Your task to perform on an android device: turn smart compose on in the gmail app Image 0: 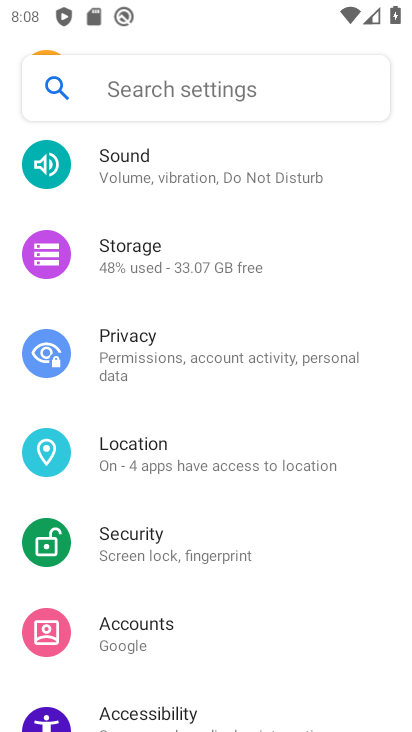
Step 0: press back button
Your task to perform on an android device: turn smart compose on in the gmail app Image 1: 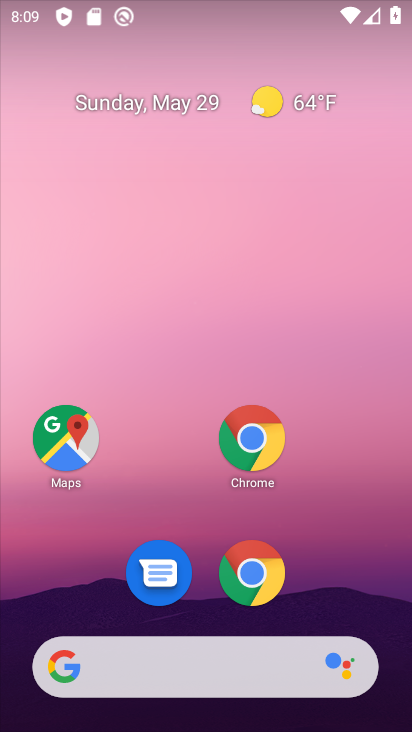
Step 1: drag from (227, 697) to (137, 169)
Your task to perform on an android device: turn smart compose on in the gmail app Image 2: 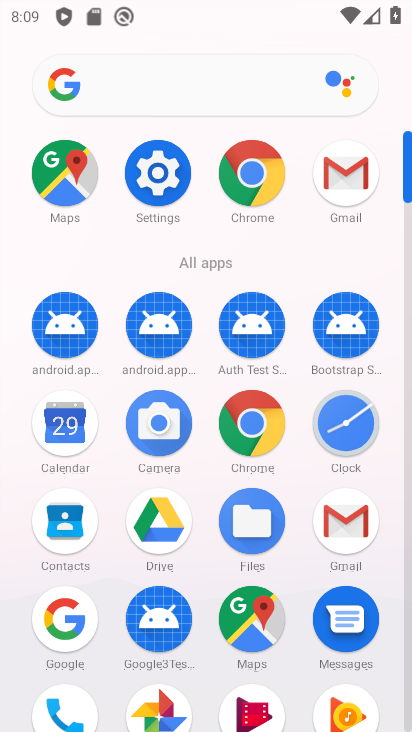
Step 2: click (341, 516)
Your task to perform on an android device: turn smart compose on in the gmail app Image 3: 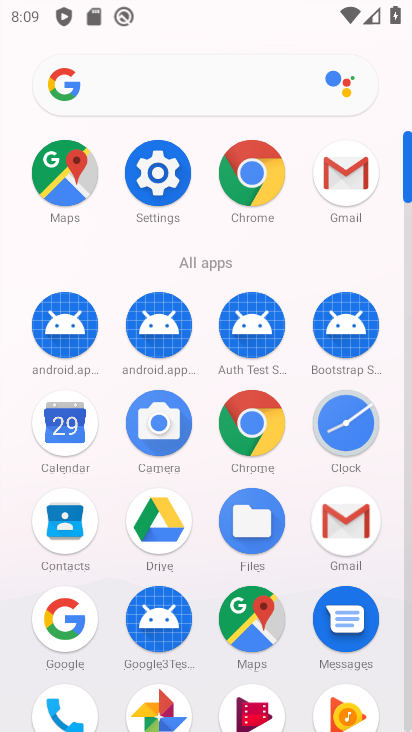
Step 3: click (341, 516)
Your task to perform on an android device: turn smart compose on in the gmail app Image 4: 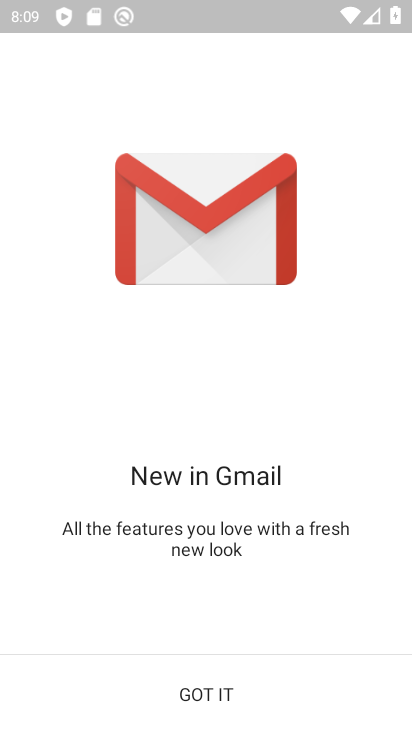
Step 4: click (350, 529)
Your task to perform on an android device: turn smart compose on in the gmail app Image 5: 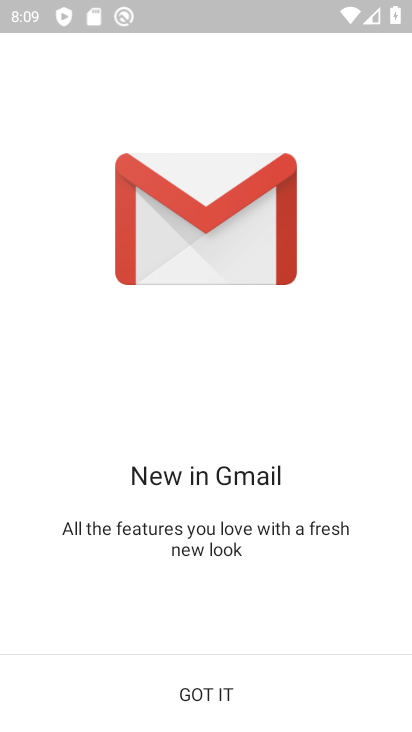
Step 5: click (209, 688)
Your task to perform on an android device: turn smart compose on in the gmail app Image 6: 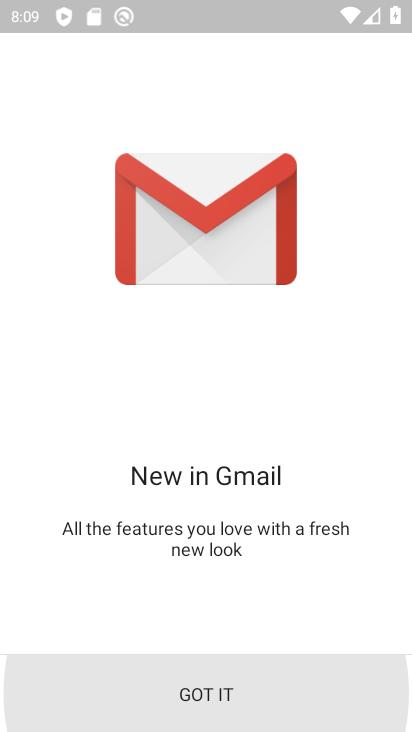
Step 6: click (204, 691)
Your task to perform on an android device: turn smart compose on in the gmail app Image 7: 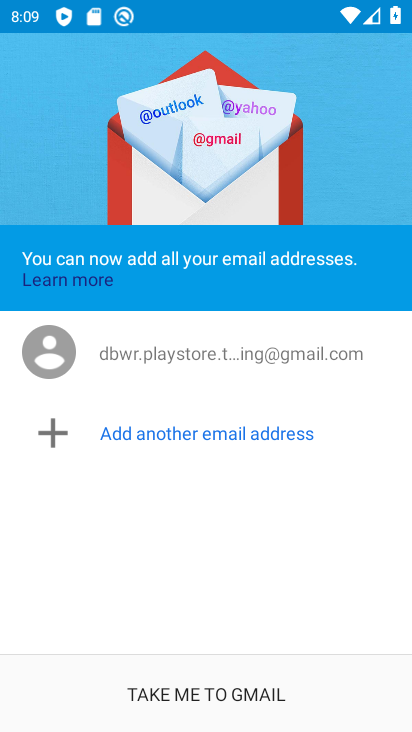
Step 7: click (203, 694)
Your task to perform on an android device: turn smart compose on in the gmail app Image 8: 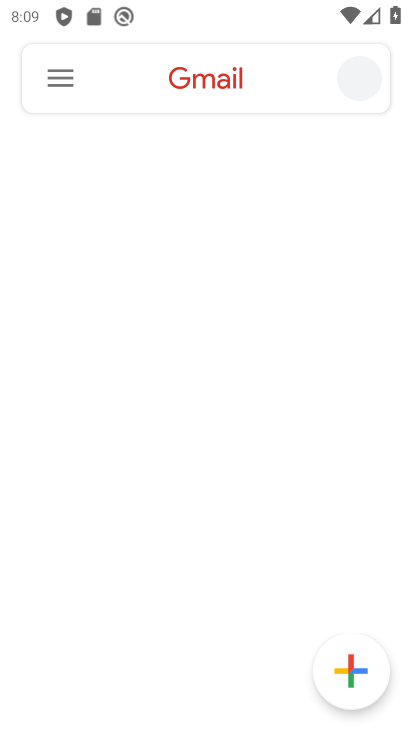
Step 8: press back button
Your task to perform on an android device: turn smart compose on in the gmail app Image 9: 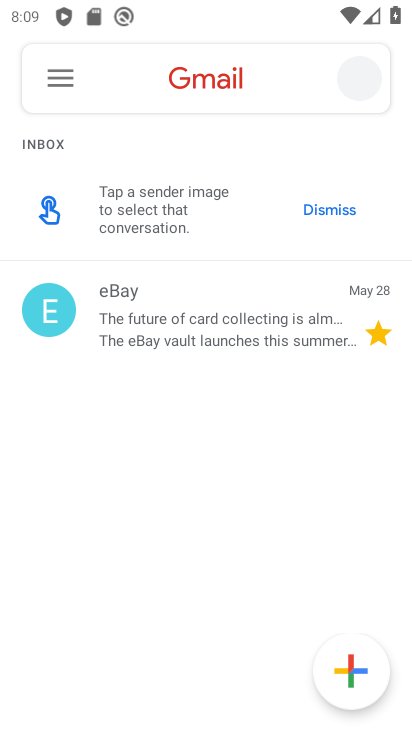
Step 9: press back button
Your task to perform on an android device: turn smart compose on in the gmail app Image 10: 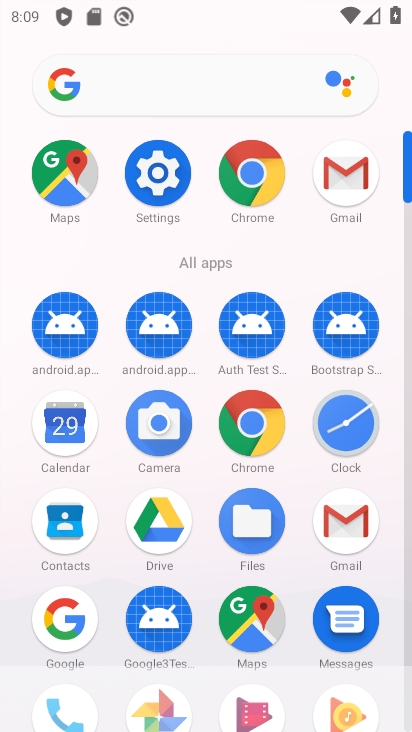
Step 10: press back button
Your task to perform on an android device: turn smart compose on in the gmail app Image 11: 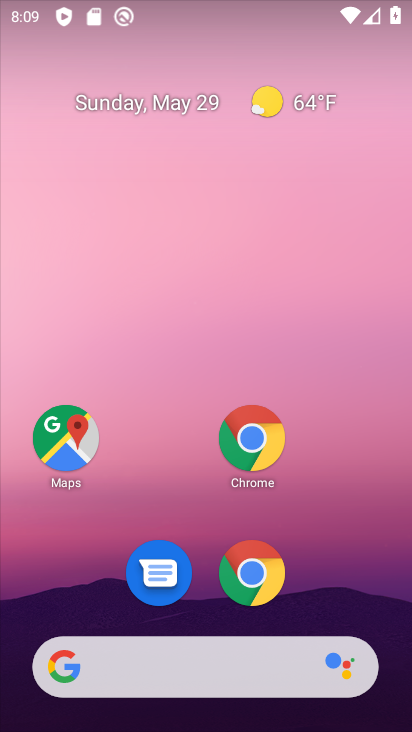
Step 11: press home button
Your task to perform on an android device: turn smart compose on in the gmail app Image 12: 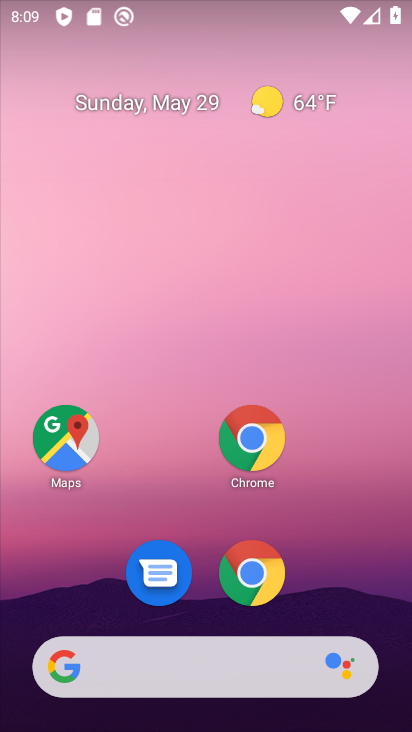
Step 12: click (227, 4)
Your task to perform on an android device: turn smart compose on in the gmail app Image 13: 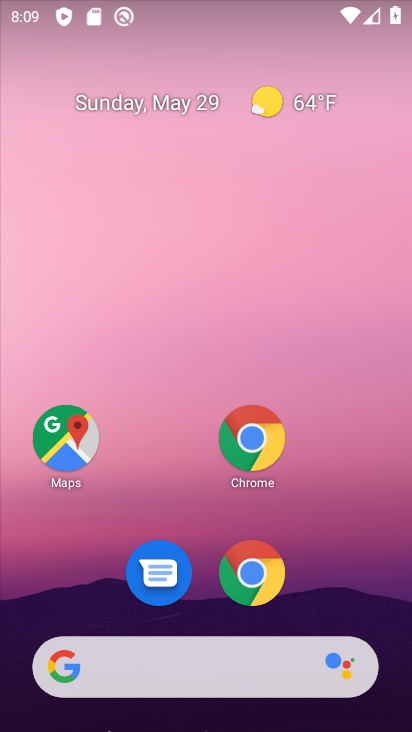
Step 13: drag from (210, 541) to (223, 89)
Your task to perform on an android device: turn smart compose on in the gmail app Image 14: 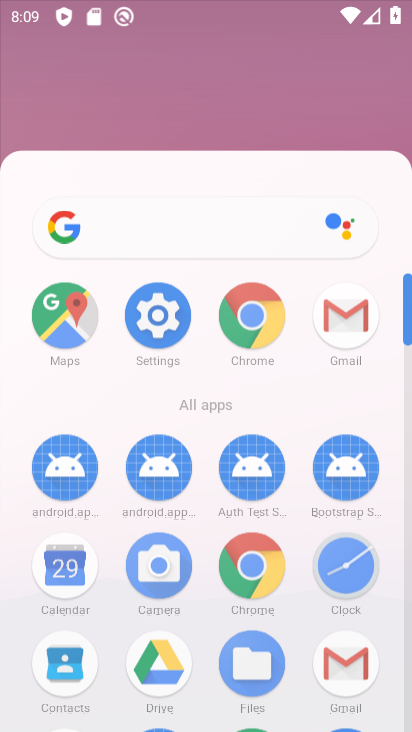
Step 14: drag from (220, 313) to (222, 70)
Your task to perform on an android device: turn smart compose on in the gmail app Image 15: 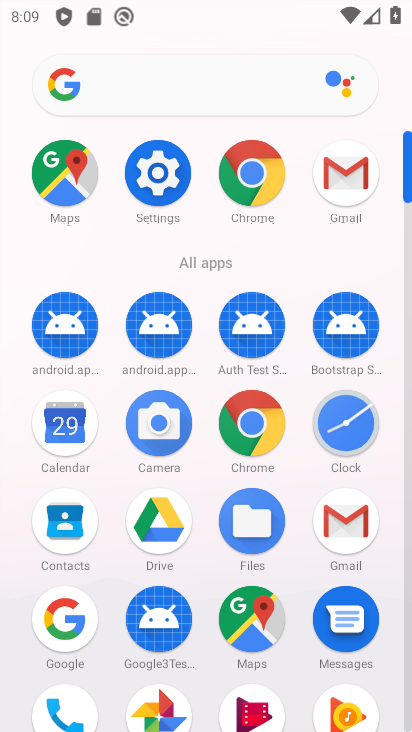
Step 15: click (345, 178)
Your task to perform on an android device: turn smart compose on in the gmail app Image 16: 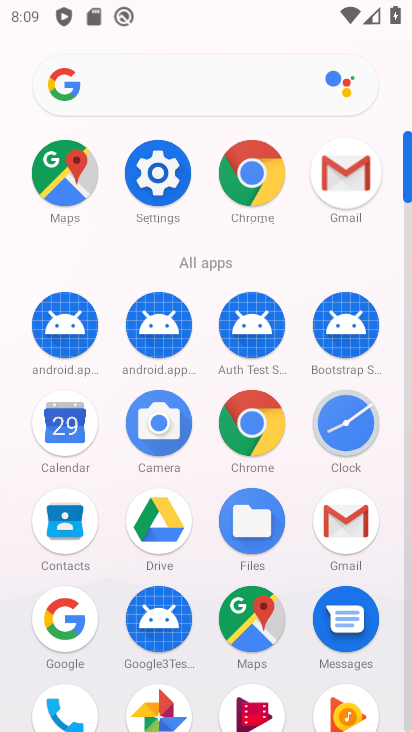
Step 16: click (345, 178)
Your task to perform on an android device: turn smart compose on in the gmail app Image 17: 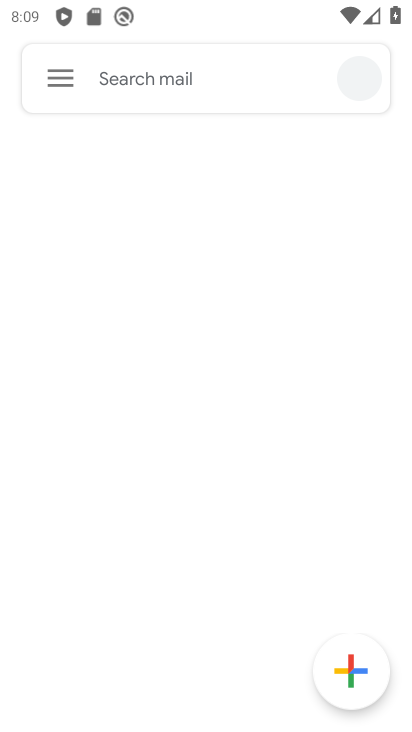
Step 17: click (345, 178)
Your task to perform on an android device: turn smart compose on in the gmail app Image 18: 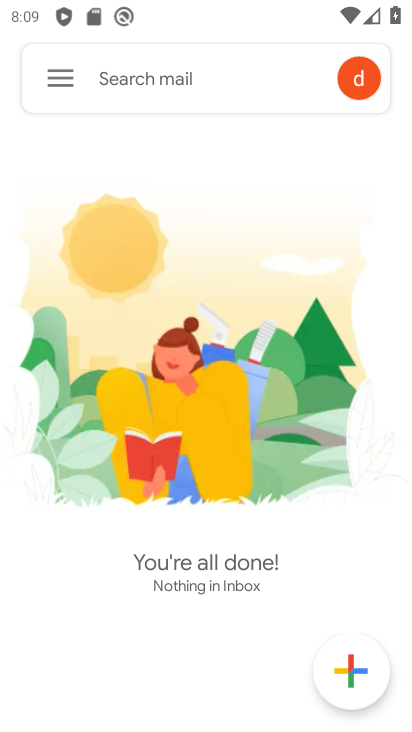
Step 18: click (57, 78)
Your task to perform on an android device: turn smart compose on in the gmail app Image 19: 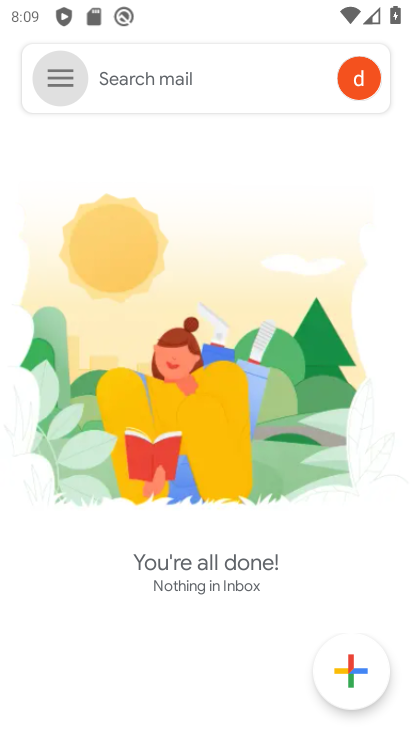
Step 19: click (58, 77)
Your task to perform on an android device: turn smart compose on in the gmail app Image 20: 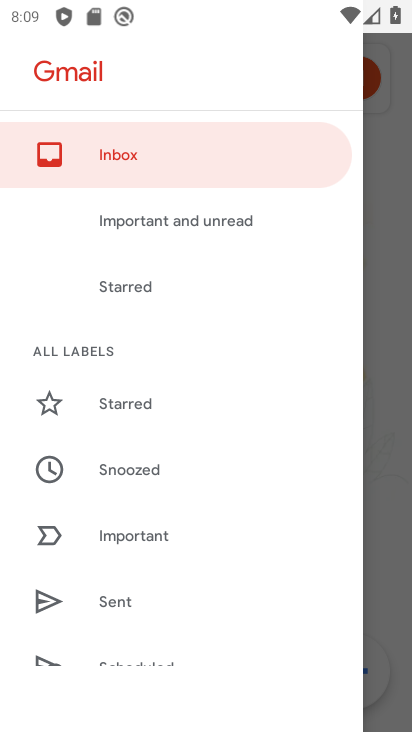
Step 20: drag from (147, 543) to (143, 195)
Your task to perform on an android device: turn smart compose on in the gmail app Image 21: 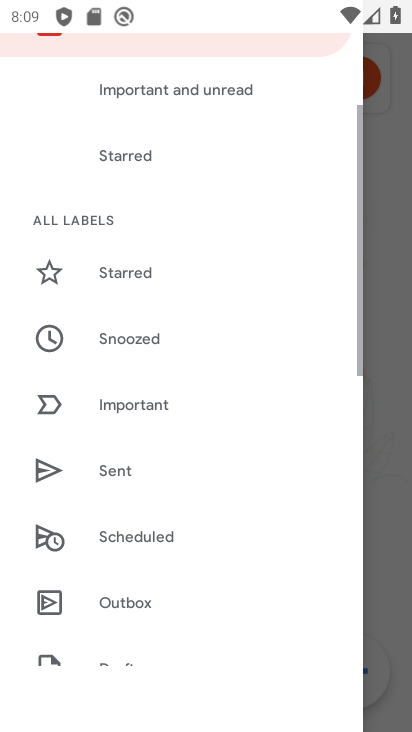
Step 21: drag from (158, 457) to (158, 19)
Your task to perform on an android device: turn smart compose on in the gmail app Image 22: 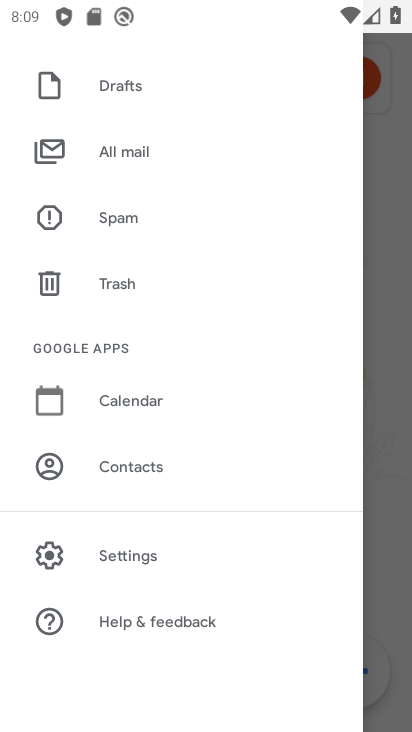
Step 22: click (123, 547)
Your task to perform on an android device: turn smart compose on in the gmail app Image 23: 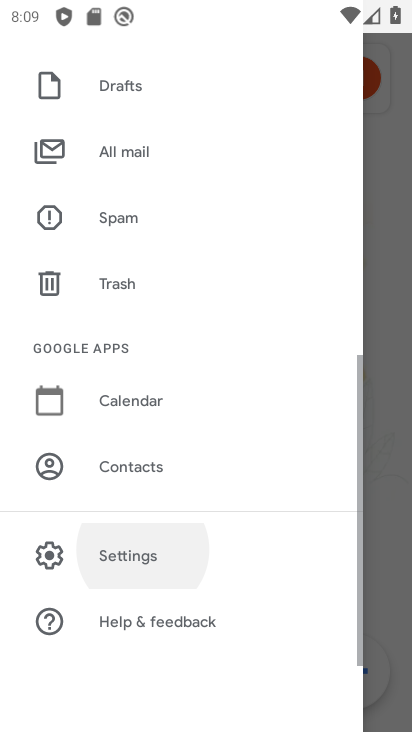
Step 23: click (121, 547)
Your task to perform on an android device: turn smart compose on in the gmail app Image 24: 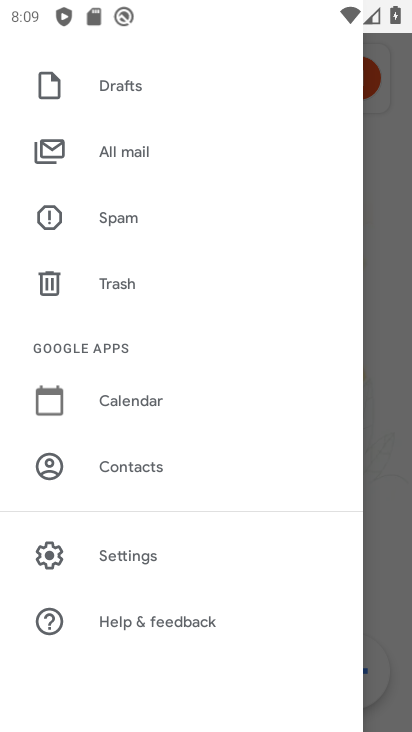
Step 24: click (120, 553)
Your task to perform on an android device: turn smart compose on in the gmail app Image 25: 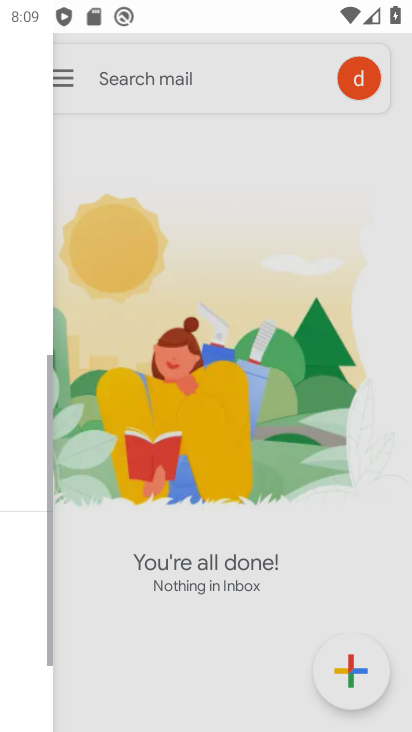
Step 25: click (125, 562)
Your task to perform on an android device: turn smart compose on in the gmail app Image 26: 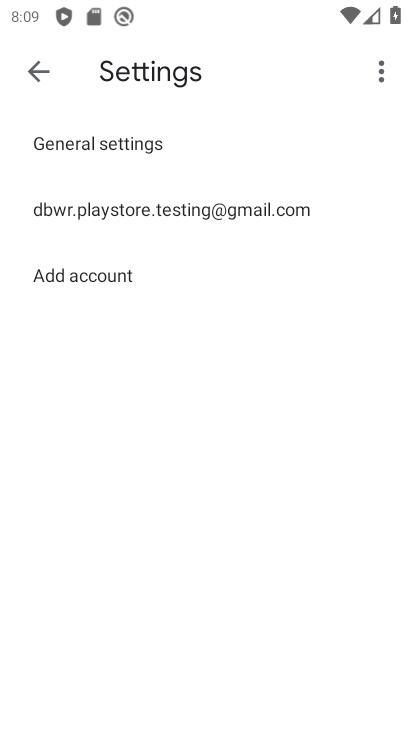
Step 26: click (136, 218)
Your task to perform on an android device: turn smart compose on in the gmail app Image 27: 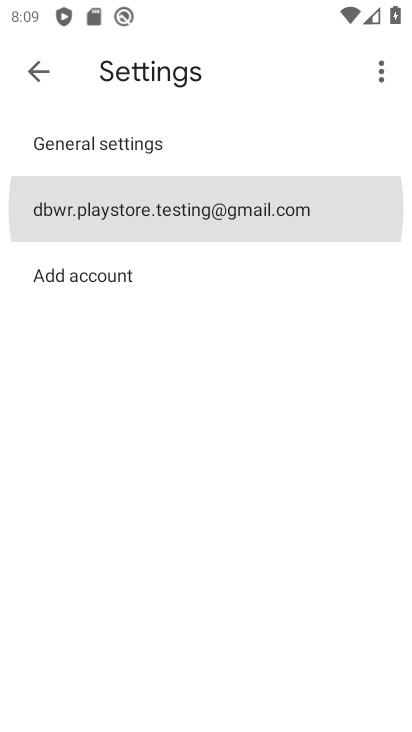
Step 27: click (133, 211)
Your task to perform on an android device: turn smart compose on in the gmail app Image 28: 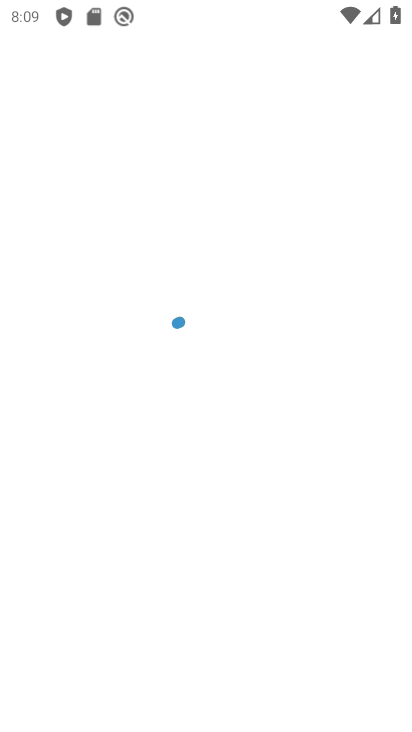
Step 28: press back button
Your task to perform on an android device: turn smart compose on in the gmail app Image 29: 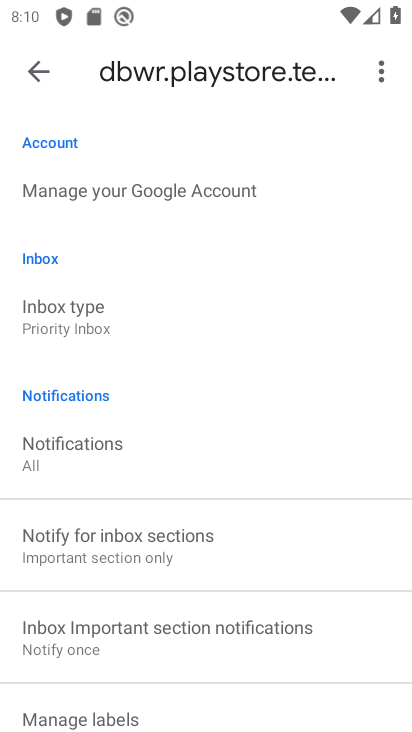
Step 29: drag from (86, 560) to (139, 190)
Your task to perform on an android device: turn smart compose on in the gmail app Image 30: 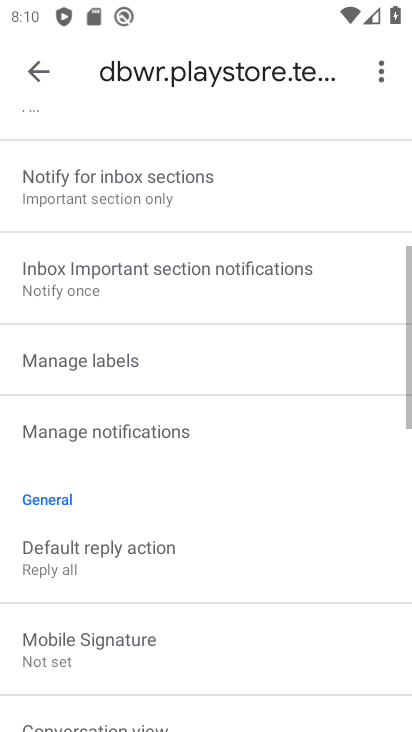
Step 30: drag from (123, 442) to (163, 109)
Your task to perform on an android device: turn smart compose on in the gmail app Image 31: 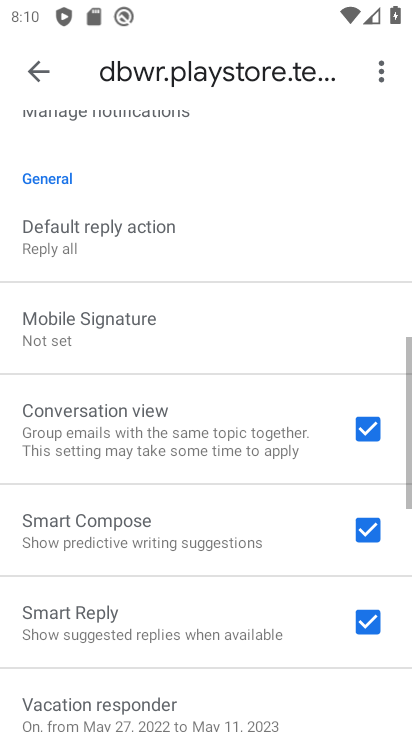
Step 31: drag from (140, 441) to (167, 22)
Your task to perform on an android device: turn smart compose on in the gmail app Image 32: 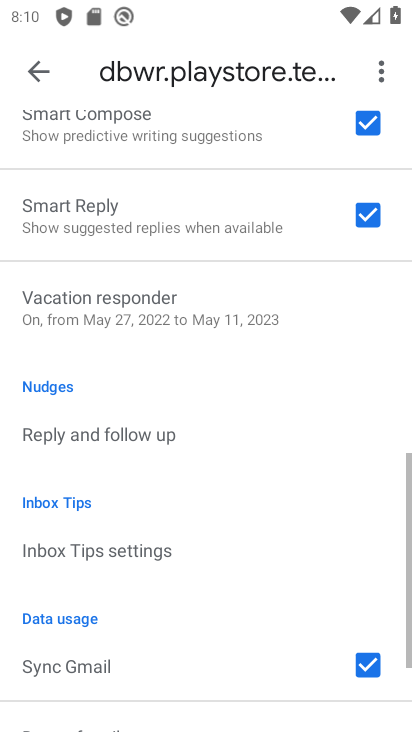
Step 32: drag from (164, 447) to (164, 202)
Your task to perform on an android device: turn smart compose on in the gmail app Image 33: 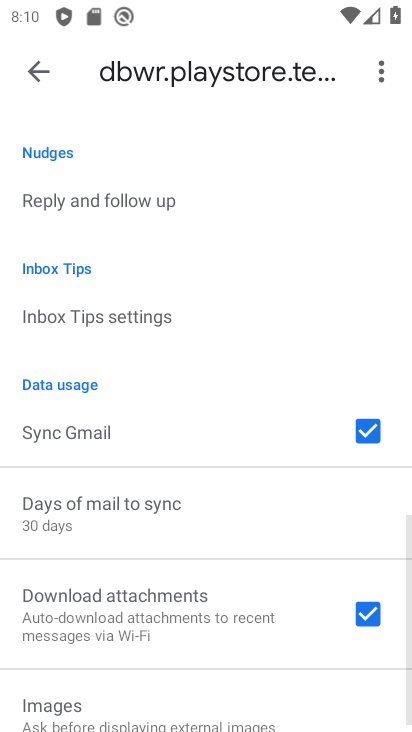
Step 33: drag from (170, 551) to (194, 231)
Your task to perform on an android device: turn smart compose on in the gmail app Image 34: 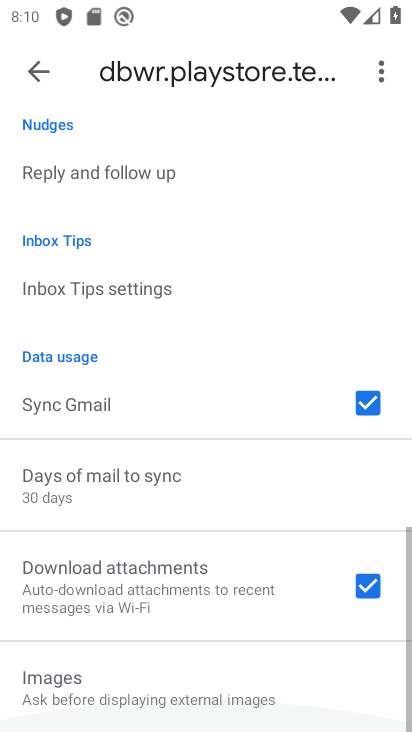
Step 34: drag from (196, 455) to (143, 137)
Your task to perform on an android device: turn smart compose on in the gmail app Image 35: 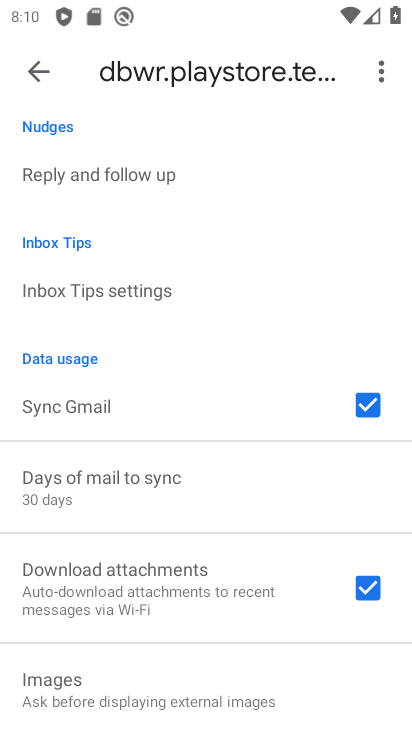
Step 35: drag from (103, 562) to (110, 246)
Your task to perform on an android device: turn smart compose on in the gmail app Image 36: 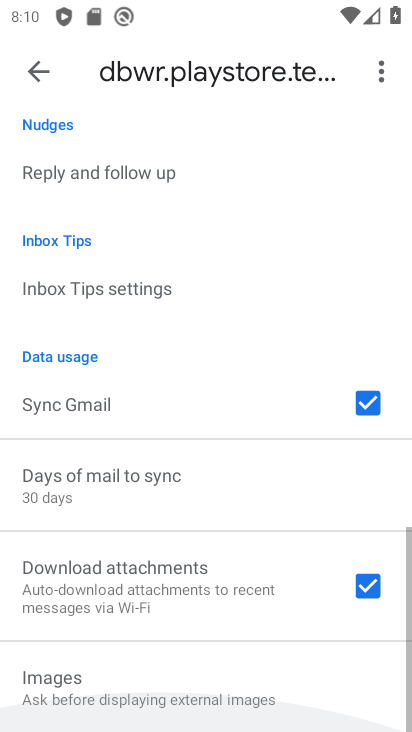
Step 36: drag from (147, 399) to (122, 186)
Your task to perform on an android device: turn smart compose on in the gmail app Image 37: 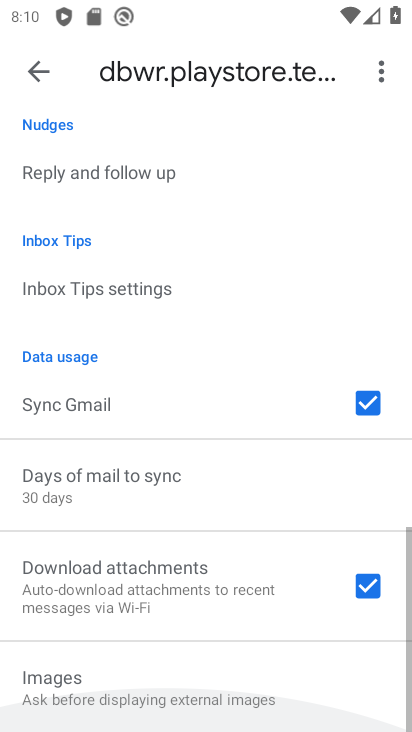
Step 37: drag from (115, 400) to (107, 105)
Your task to perform on an android device: turn smart compose on in the gmail app Image 38: 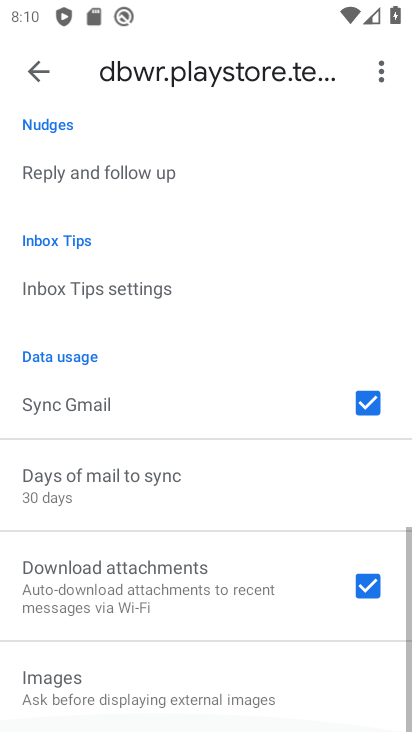
Step 38: drag from (149, 563) to (124, 274)
Your task to perform on an android device: turn smart compose on in the gmail app Image 39: 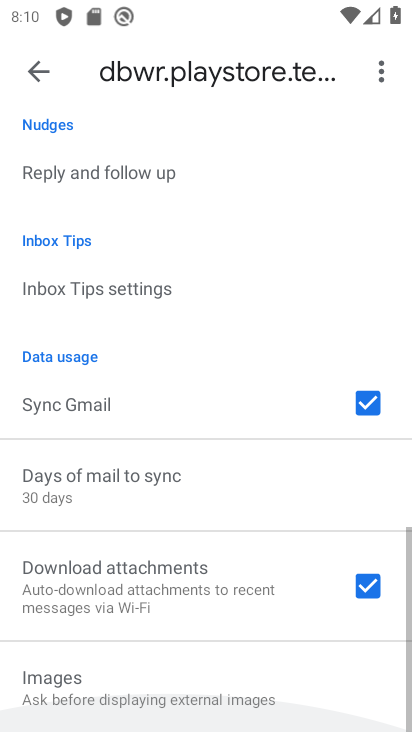
Step 39: drag from (134, 308) to (196, 482)
Your task to perform on an android device: turn smart compose on in the gmail app Image 40: 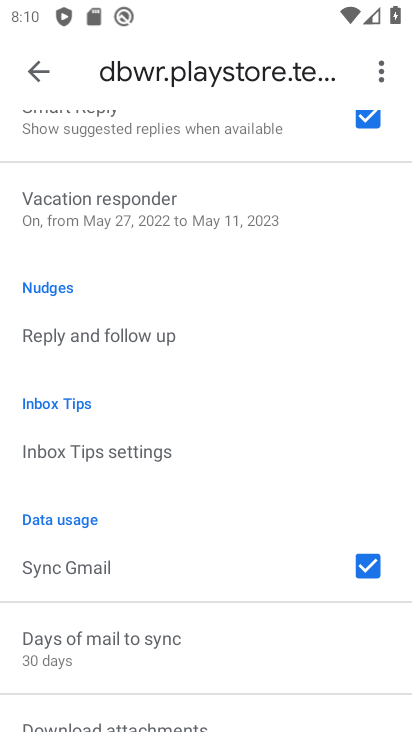
Step 40: click (109, 412)
Your task to perform on an android device: turn smart compose on in the gmail app Image 41: 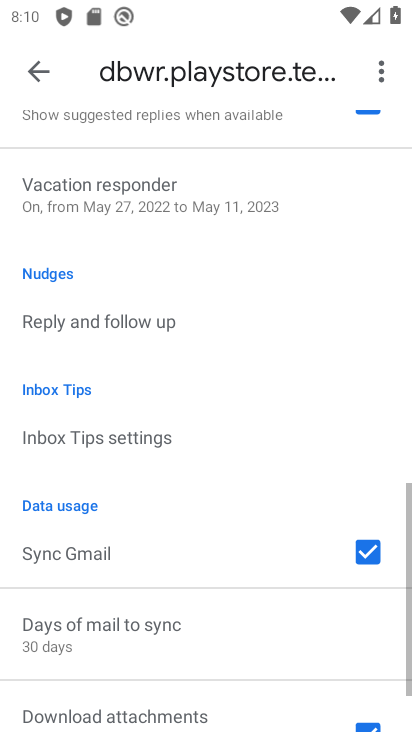
Step 41: task complete